Your task to perform on an android device: turn off data saver in the chrome app Image 0: 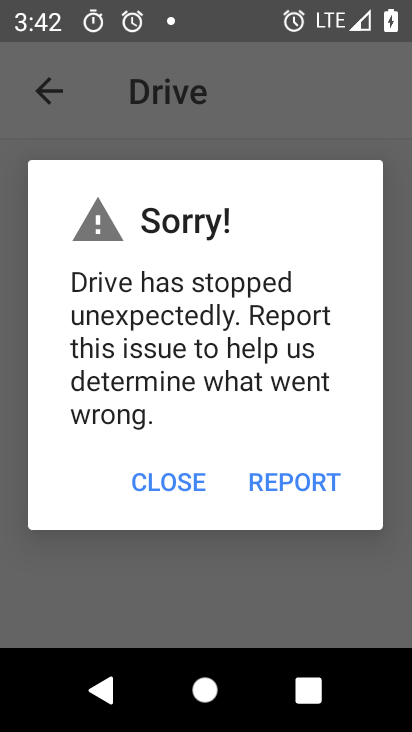
Step 0: press home button
Your task to perform on an android device: turn off data saver in the chrome app Image 1: 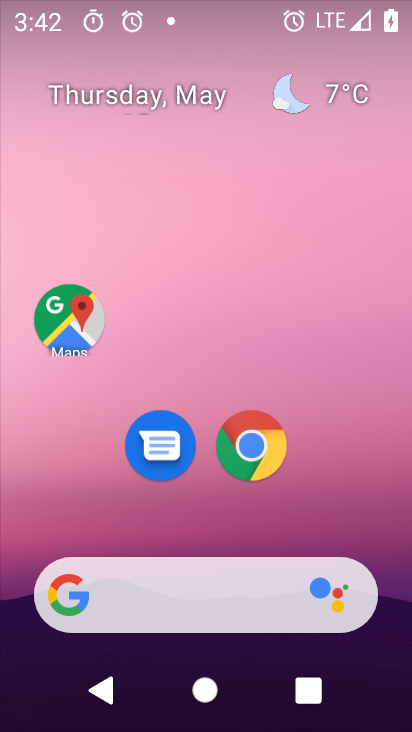
Step 1: click (258, 455)
Your task to perform on an android device: turn off data saver in the chrome app Image 2: 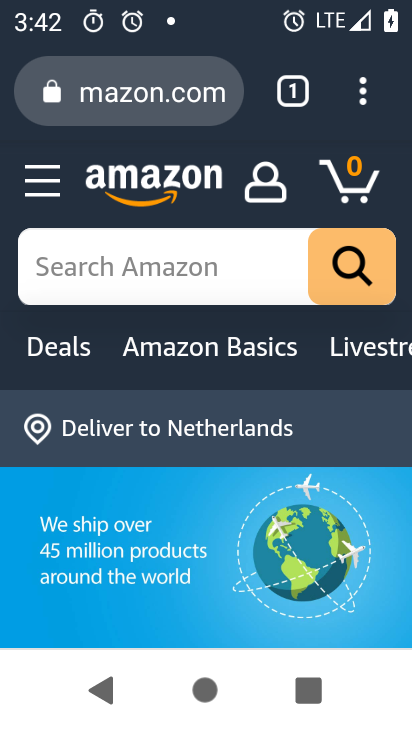
Step 2: click (359, 95)
Your task to perform on an android device: turn off data saver in the chrome app Image 3: 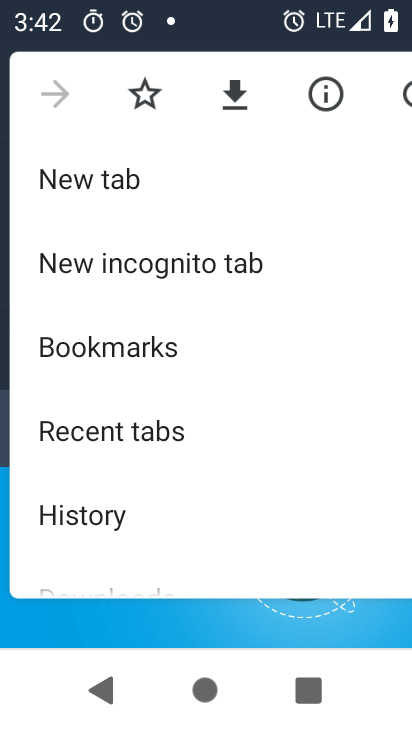
Step 3: drag from (231, 466) to (241, 108)
Your task to perform on an android device: turn off data saver in the chrome app Image 4: 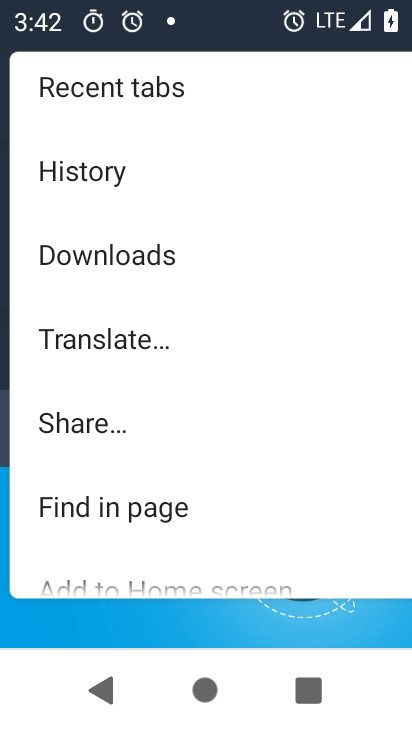
Step 4: drag from (207, 387) to (216, 152)
Your task to perform on an android device: turn off data saver in the chrome app Image 5: 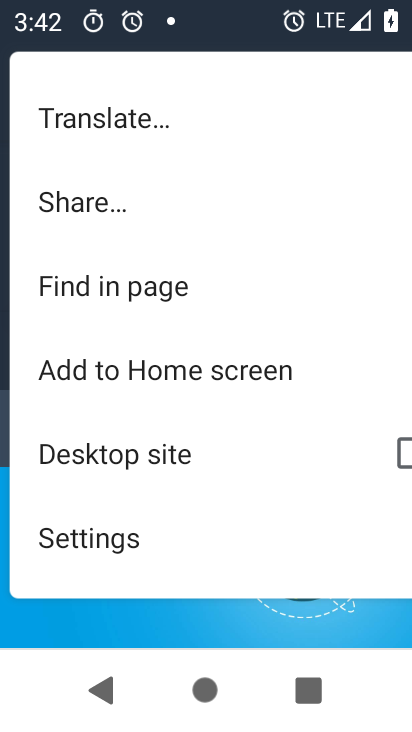
Step 5: drag from (215, 495) to (232, 161)
Your task to perform on an android device: turn off data saver in the chrome app Image 6: 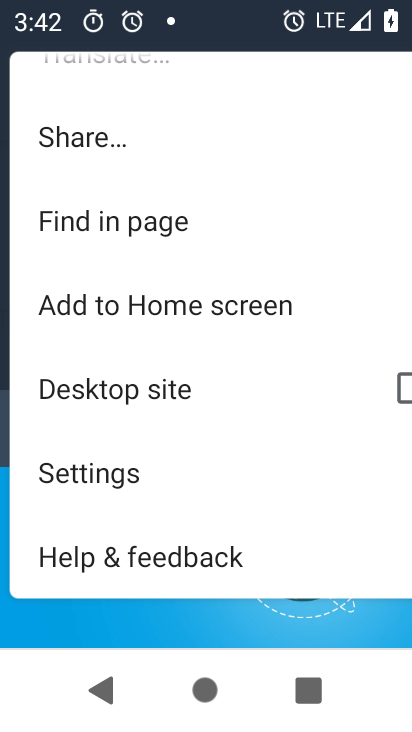
Step 6: click (109, 482)
Your task to perform on an android device: turn off data saver in the chrome app Image 7: 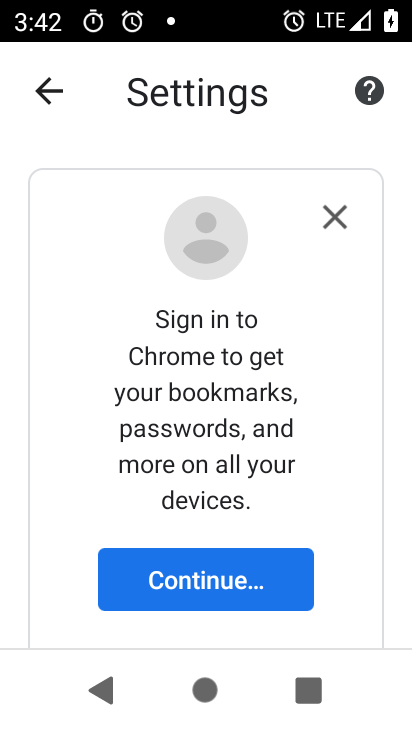
Step 7: drag from (343, 564) to (351, 116)
Your task to perform on an android device: turn off data saver in the chrome app Image 8: 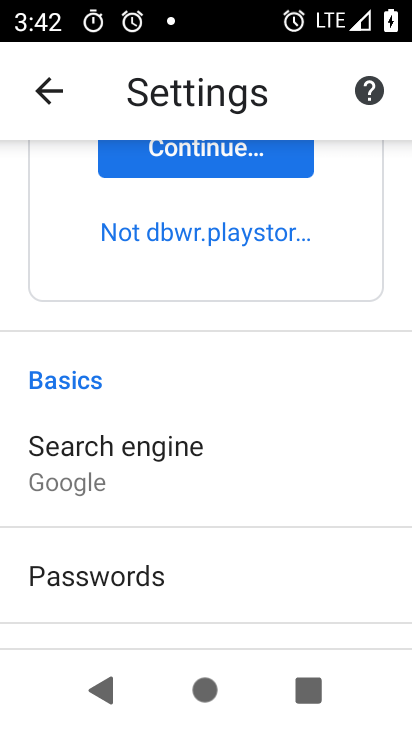
Step 8: drag from (307, 524) to (286, 124)
Your task to perform on an android device: turn off data saver in the chrome app Image 9: 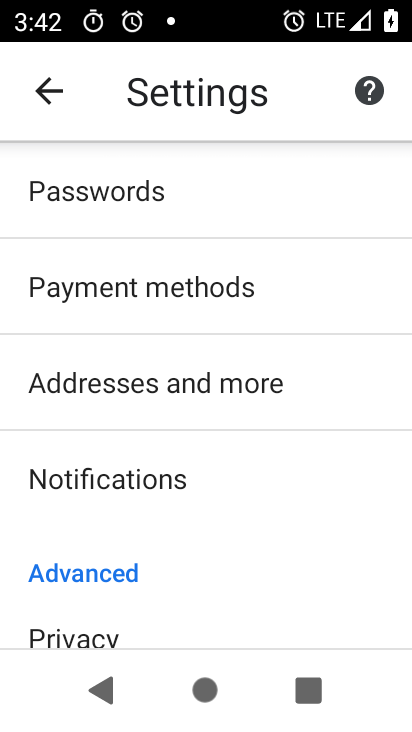
Step 9: drag from (259, 517) to (265, 110)
Your task to perform on an android device: turn off data saver in the chrome app Image 10: 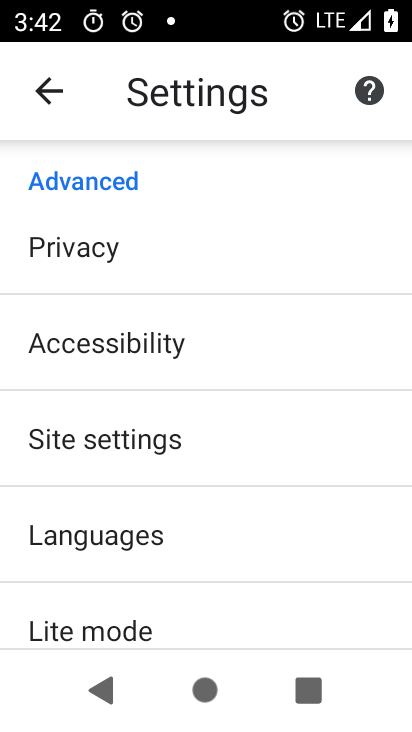
Step 10: drag from (232, 538) to (266, 281)
Your task to perform on an android device: turn off data saver in the chrome app Image 11: 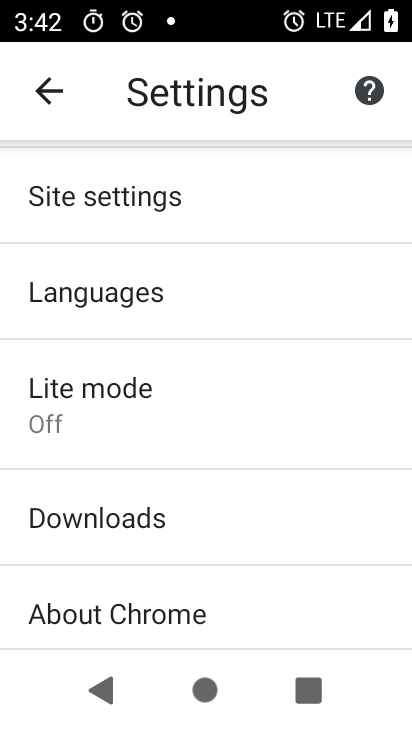
Step 11: click (74, 405)
Your task to perform on an android device: turn off data saver in the chrome app Image 12: 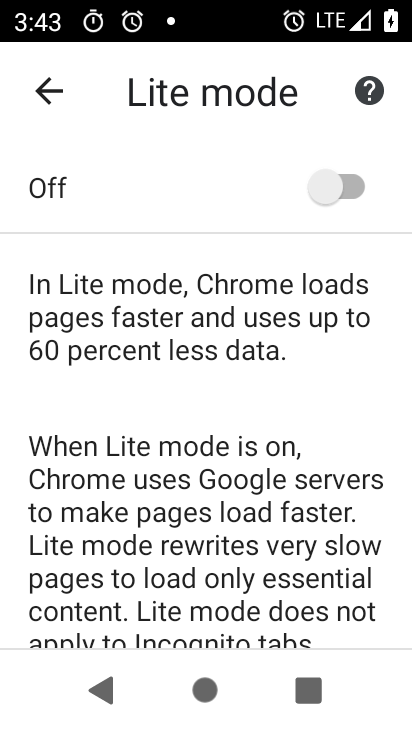
Step 12: task complete